Your task to perform on an android device: turn on the 12-hour format for clock Image 0: 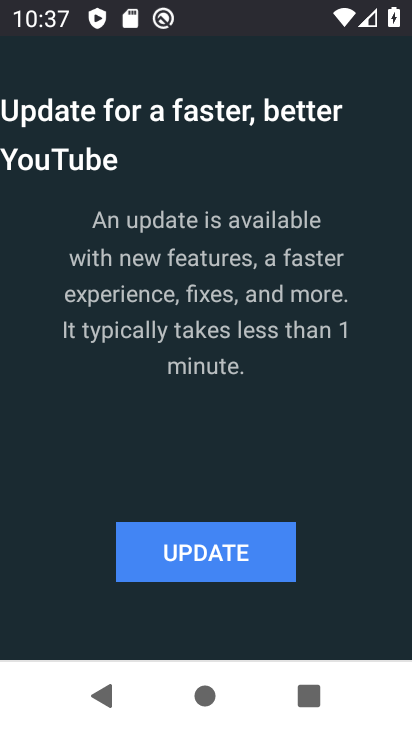
Step 0: press home button
Your task to perform on an android device: turn on the 12-hour format for clock Image 1: 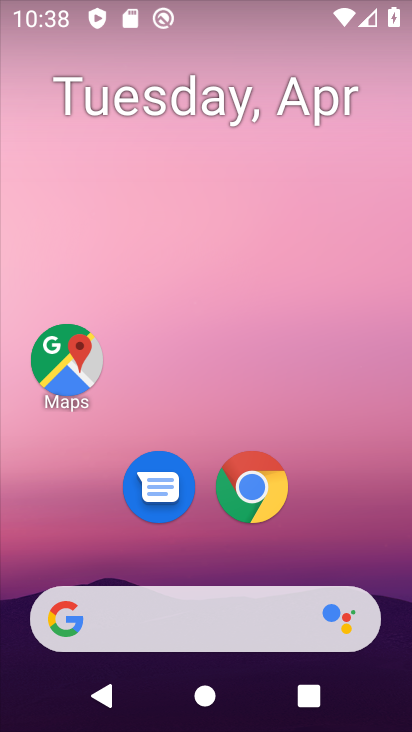
Step 1: drag from (237, 574) to (185, 294)
Your task to perform on an android device: turn on the 12-hour format for clock Image 2: 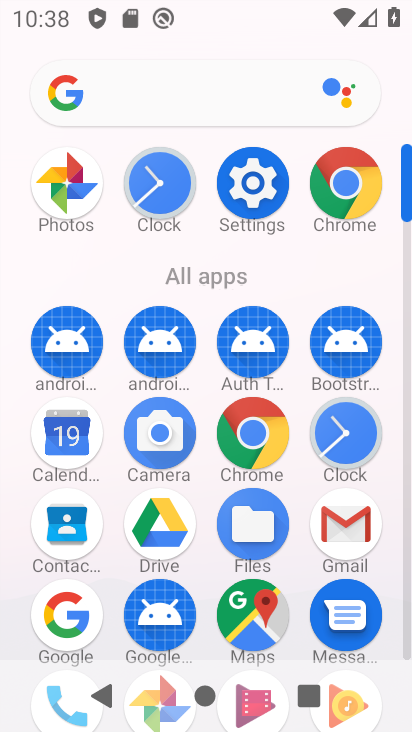
Step 2: click (171, 190)
Your task to perform on an android device: turn on the 12-hour format for clock Image 3: 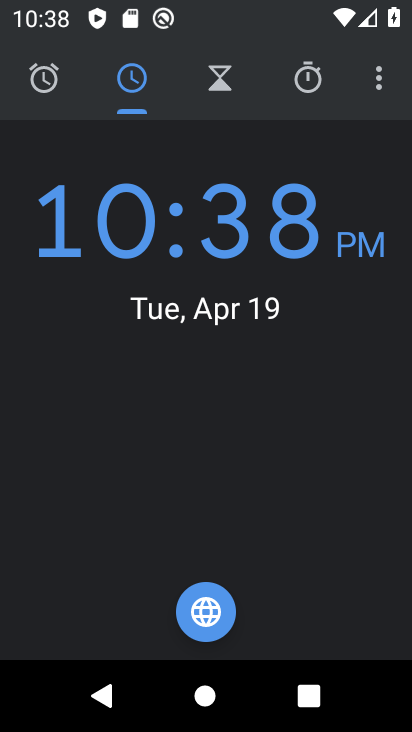
Step 3: press back button
Your task to perform on an android device: turn on the 12-hour format for clock Image 4: 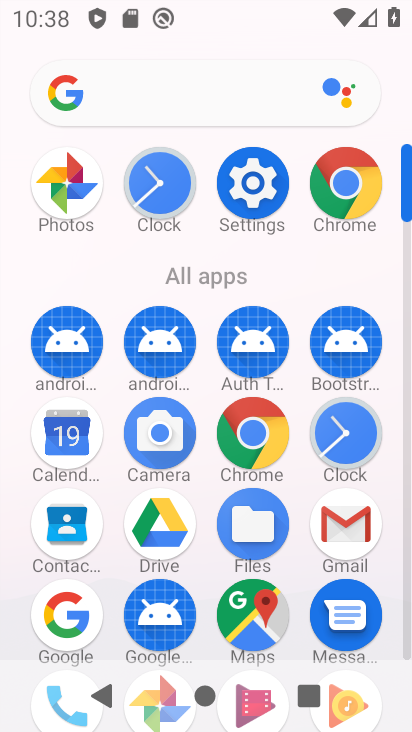
Step 4: click (256, 171)
Your task to perform on an android device: turn on the 12-hour format for clock Image 5: 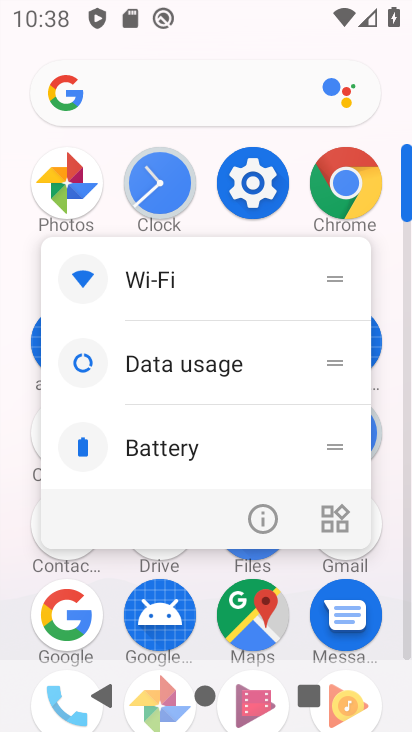
Step 5: click (255, 187)
Your task to perform on an android device: turn on the 12-hour format for clock Image 6: 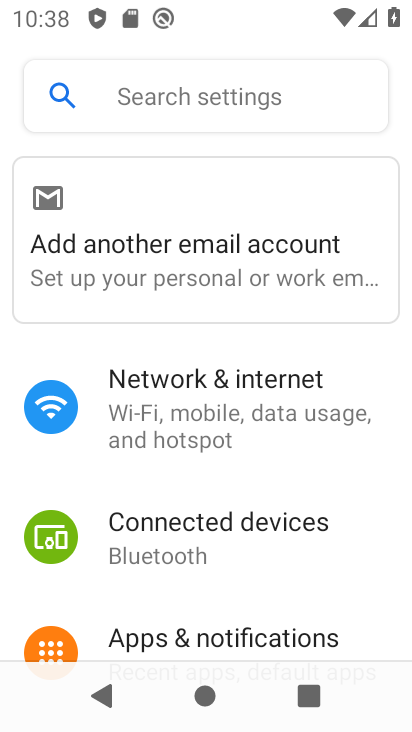
Step 6: drag from (199, 605) to (165, 75)
Your task to perform on an android device: turn on the 12-hour format for clock Image 7: 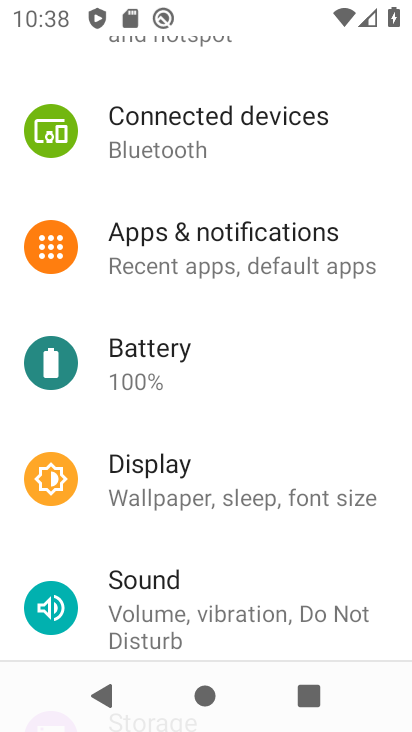
Step 7: drag from (183, 584) to (170, 8)
Your task to perform on an android device: turn on the 12-hour format for clock Image 8: 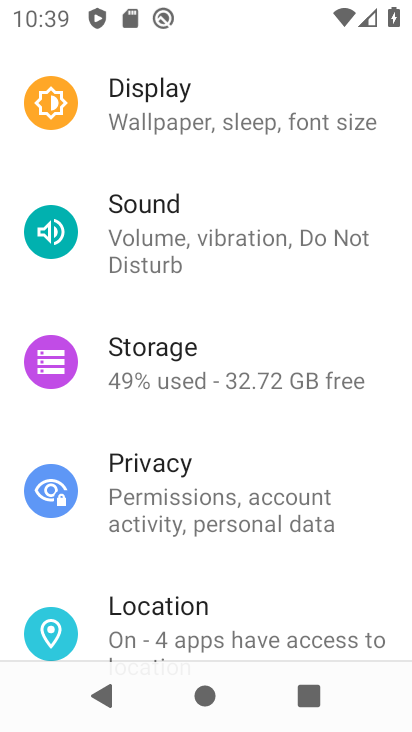
Step 8: drag from (181, 571) to (156, 23)
Your task to perform on an android device: turn on the 12-hour format for clock Image 9: 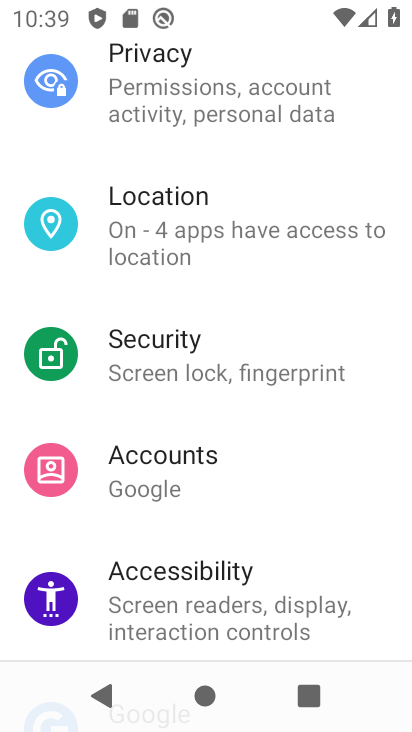
Step 9: drag from (275, 538) to (242, 194)
Your task to perform on an android device: turn on the 12-hour format for clock Image 10: 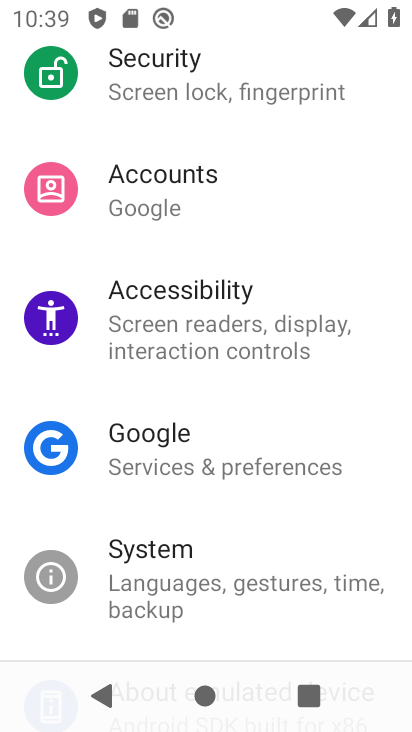
Step 10: click (160, 572)
Your task to perform on an android device: turn on the 12-hour format for clock Image 11: 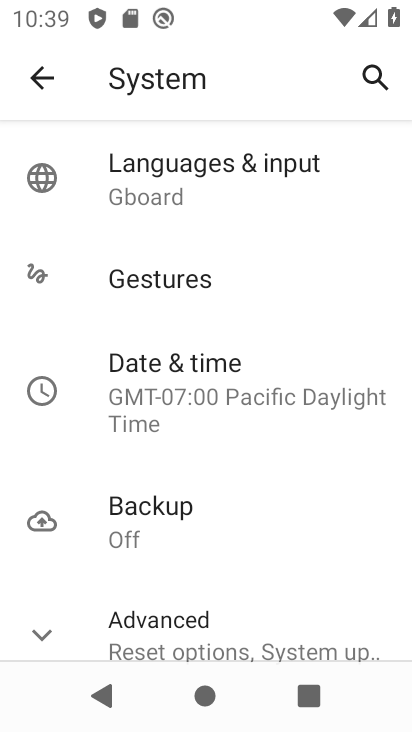
Step 11: click (220, 418)
Your task to perform on an android device: turn on the 12-hour format for clock Image 12: 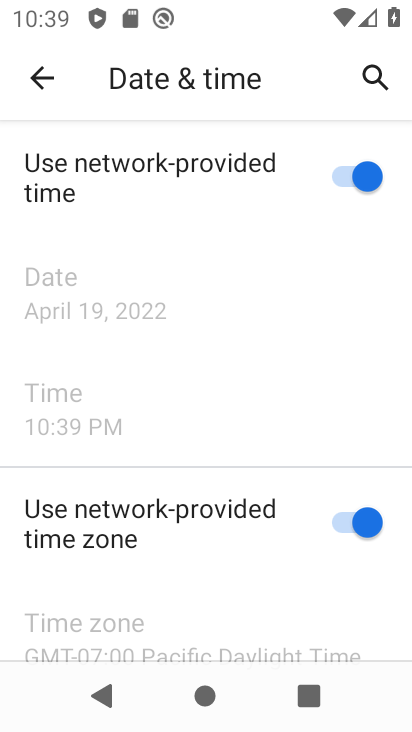
Step 12: task complete